Your task to perform on an android device: Go to notification settings Image 0: 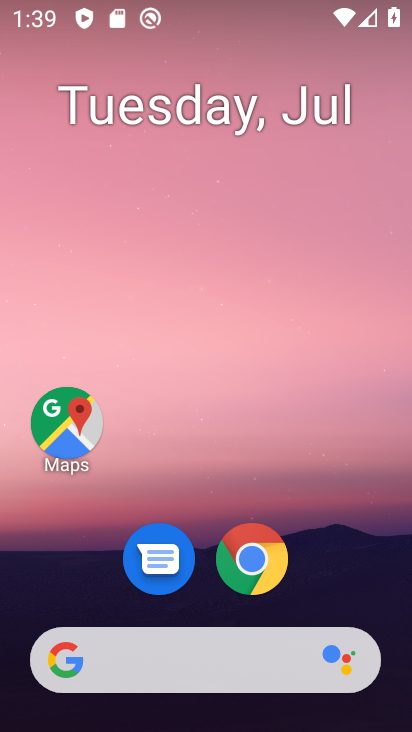
Step 0: drag from (348, 576) to (356, 67)
Your task to perform on an android device: Go to notification settings Image 1: 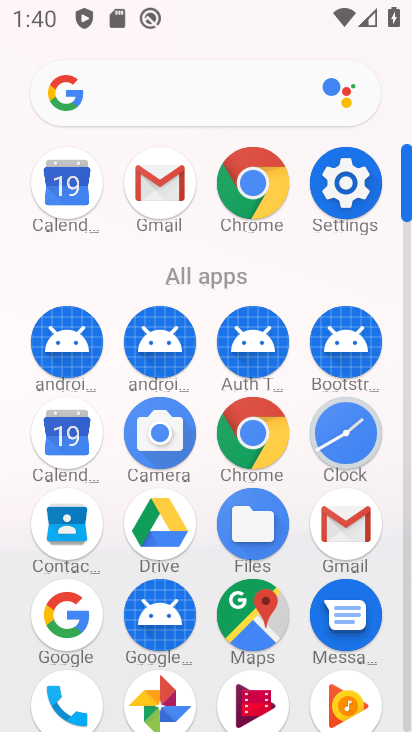
Step 1: click (339, 189)
Your task to perform on an android device: Go to notification settings Image 2: 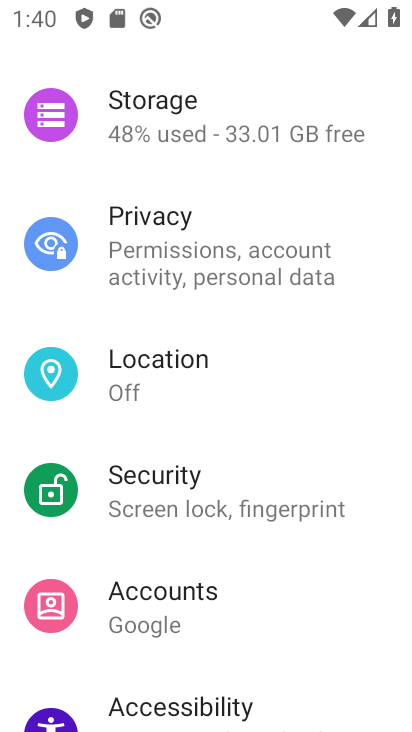
Step 2: drag from (368, 296) to (363, 387)
Your task to perform on an android device: Go to notification settings Image 3: 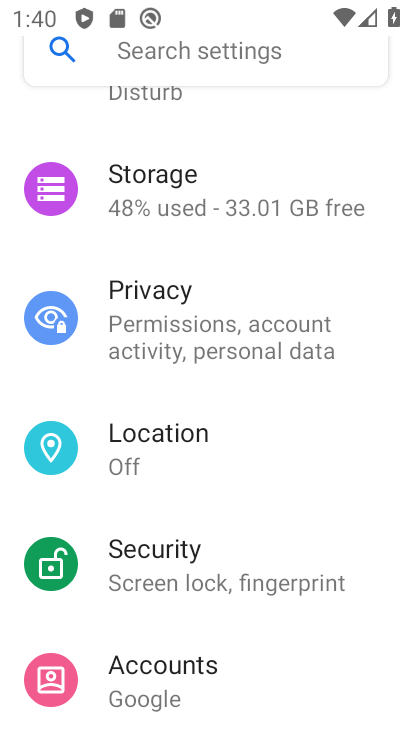
Step 3: drag from (358, 270) to (375, 386)
Your task to perform on an android device: Go to notification settings Image 4: 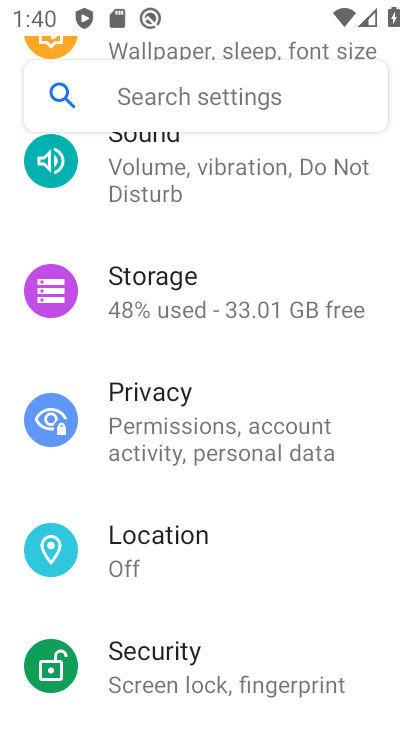
Step 4: drag from (382, 518) to (372, 414)
Your task to perform on an android device: Go to notification settings Image 5: 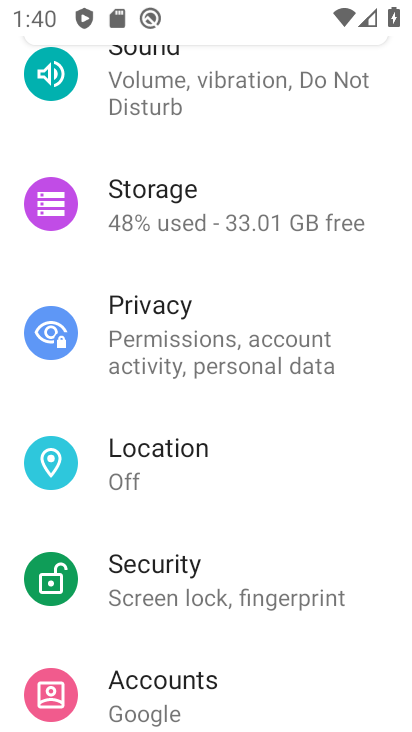
Step 5: drag from (355, 527) to (358, 435)
Your task to perform on an android device: Go to notification settings Image 6: 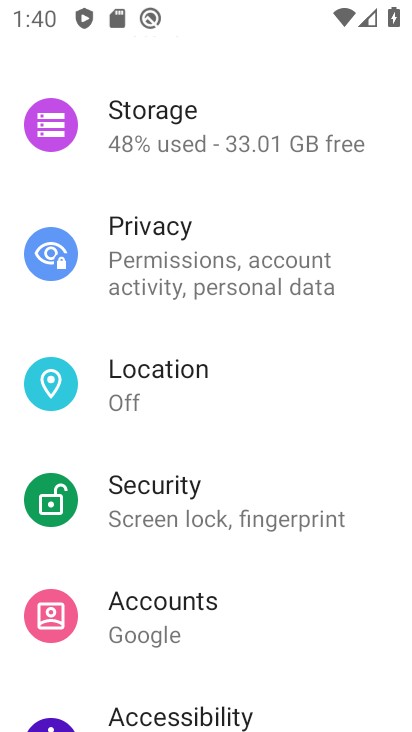
Step 6: drag from (368, 574) to (367, 474)
Your task to perform on an android device: Go to notification settings Image 7: 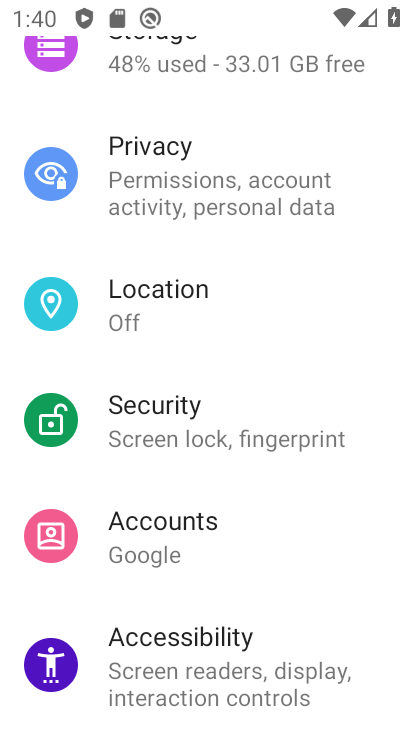
Step 7: drag from (344, 343) to (355, 475)
Your task to perform on an android device: Go to notification settings Image 8: 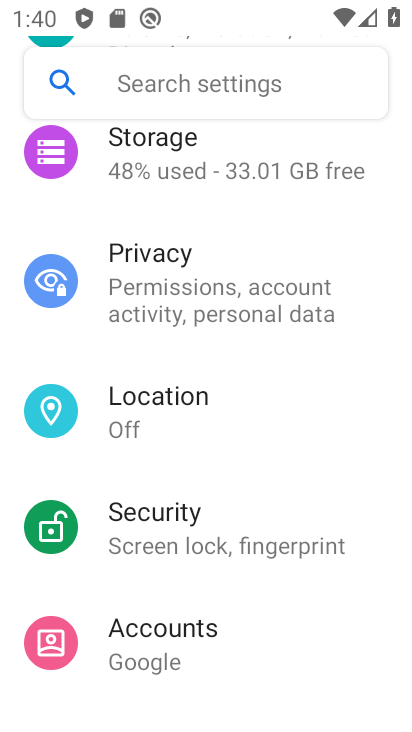
Step 8: drag from (365, 273) to (366, 410)
Your task to perform on an android device: Go to notification settings Image 9: 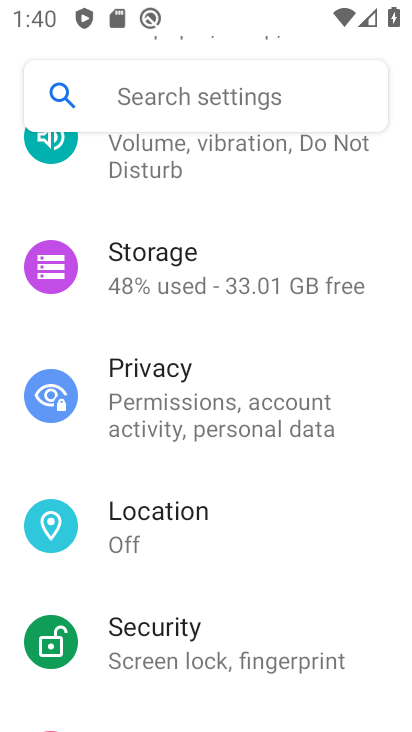
Step 9: drag from (375, 223) to (376, 380)
Your task to perform on an android device: Go to notification settings Image 10: 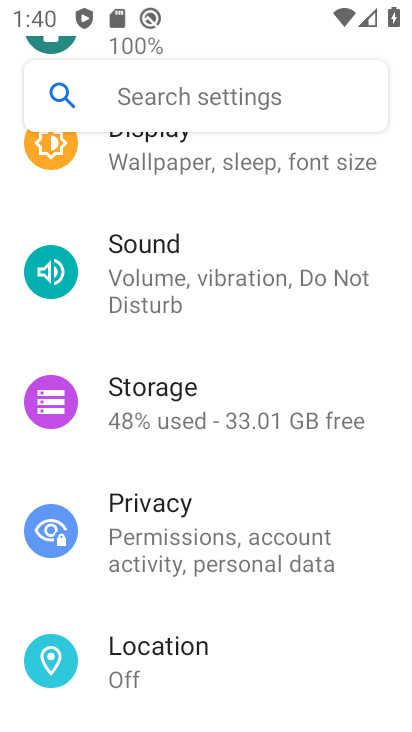
Step 10: drag from (389, 202) to (385, 356)
Your task to perform on an android device: Go to notification settings Image 11: 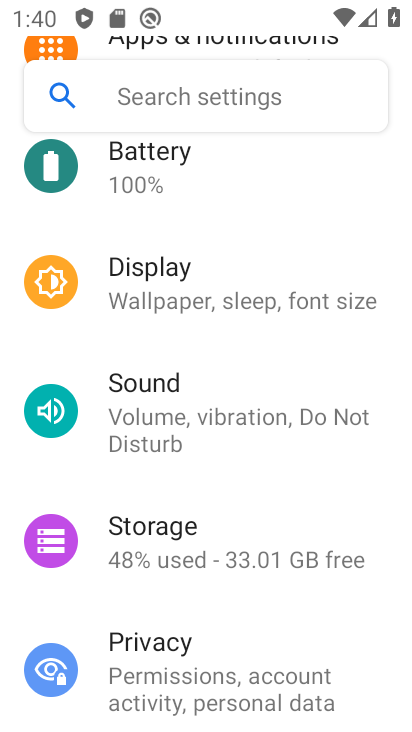
Step 11: drag from (375, 186) to (367, 346)
Your task to perform on an android device: Go to notification settings Image 12: 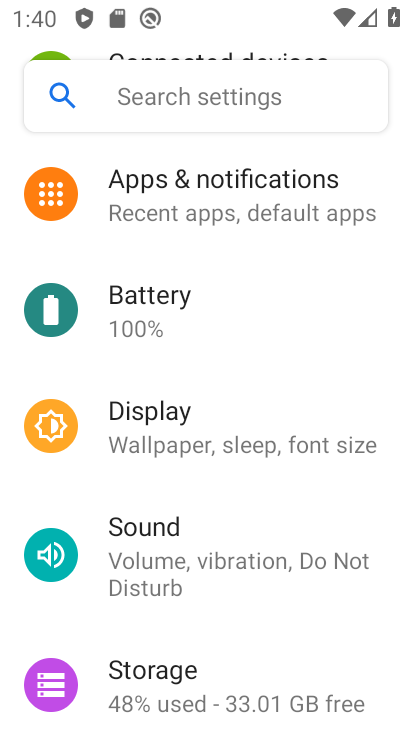
Step 12: click (329, 205)
Your task to perform on an android device: Go to notification settings Image 13: 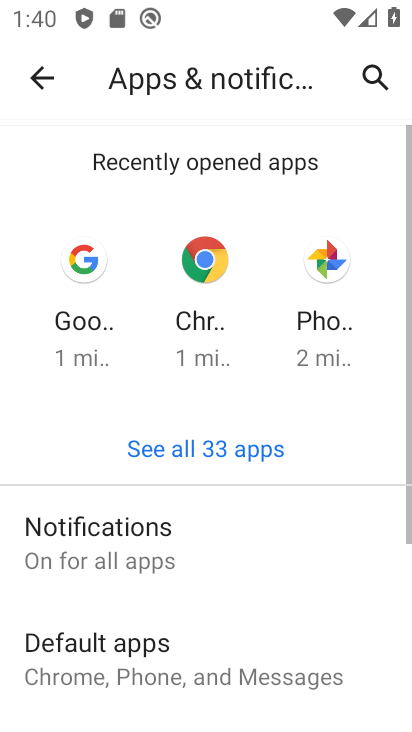
Step 13: drag from (290, 518) to (304, 408)
Your task to perform on an android device: Go to notification settings Image 14: 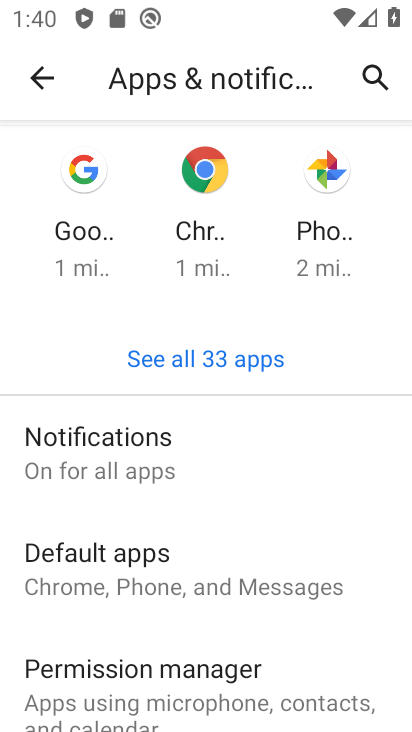
Step 14: click (251, 467)
Your task to perform on an android device: Go to notification settings Image 15: 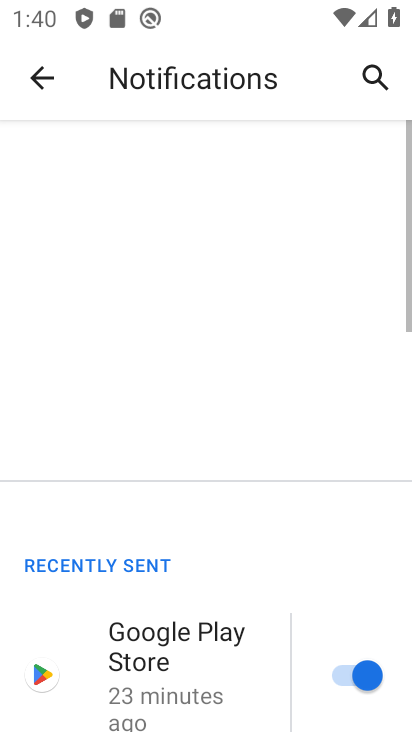
Step 15: task complete